Your task to perform on an android device: Open the Play Movies app and select the watchlist tab. Image 0: 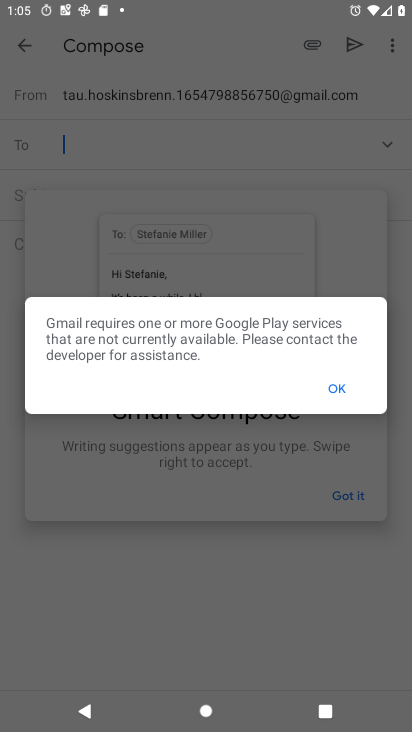
Step 0: press home button
Your task to perform on an android device: Open the Play Movies app and select the watchlist tab. Image 1: 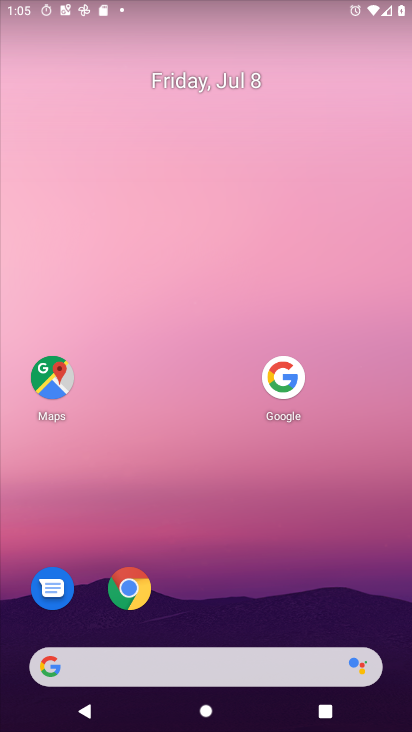
Step 1: drag from (168, 663) to (329, 172)
Your task to perform on an android device: Open the Play Movies app and select the watchlist tab. Image 2: 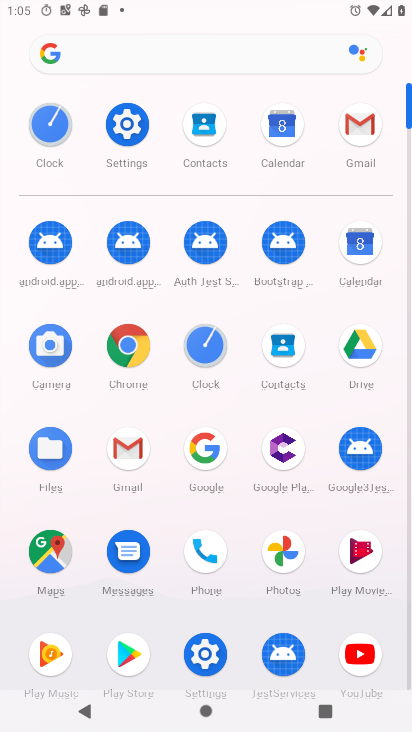
Step 2: click (356, 556)
Your task to perform on an android device: Open the Play Movies app and select the watchlist tab. Image 3: 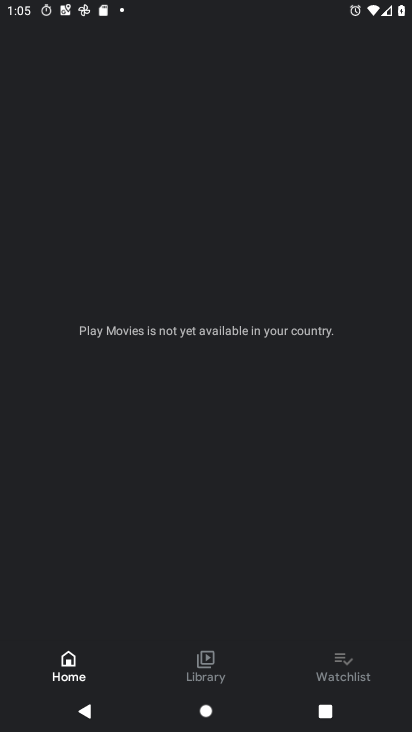
Step 3: click (340, 657)
Your task to perform on an android device: Open the Play Movies app and select the watchlist tab. Image 4: 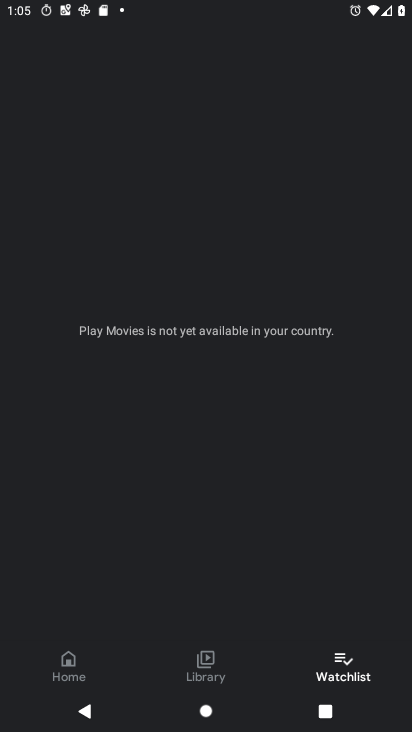
Step 4: task complete